Your task to perform on an android device: Open Google Maps and go to "Timeline" Image 0: 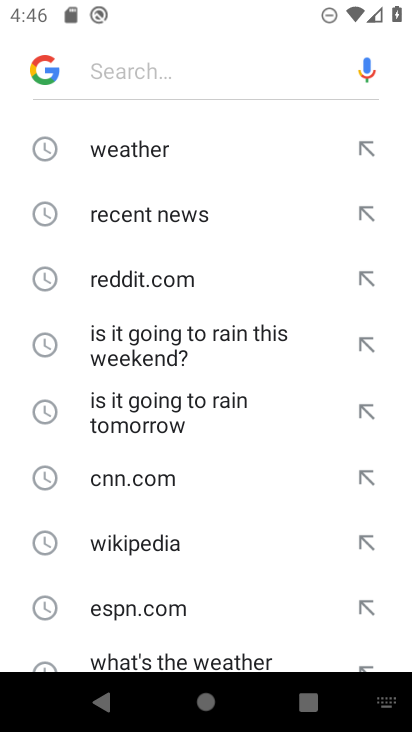
Step 0: press home button
Your task to perform on an android device: Open Google Maps and go to "Timeline" Image 1: 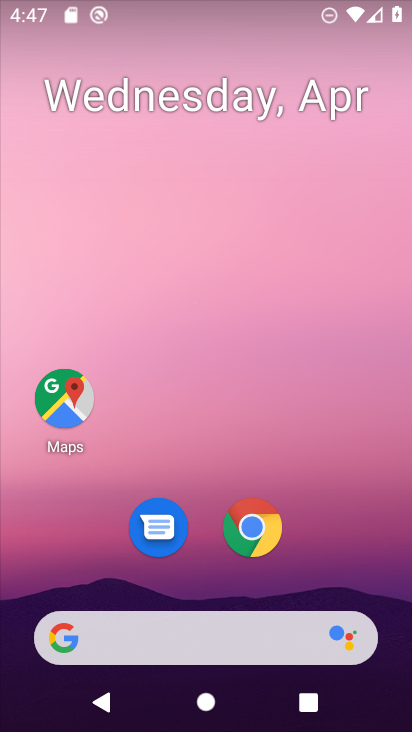
Step 1: click (55, 411)
Your task to perform on an android device: Open Google Maps and go to "Timeline" Image 2: 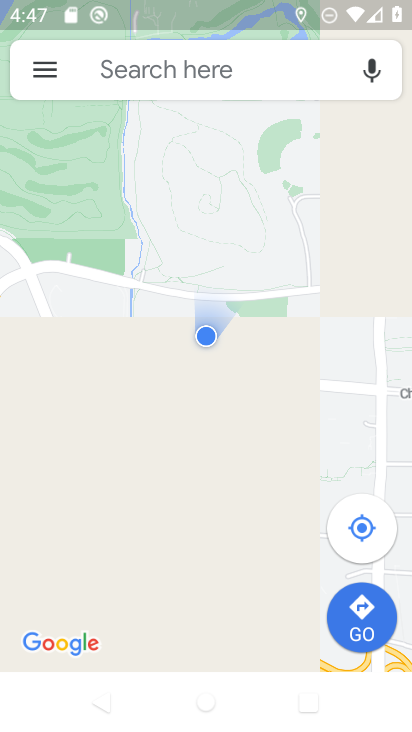
Step 2: click (50, 73)
Your task to perform on an android device: Open Google Maps and go to "Timeline" Image 3: 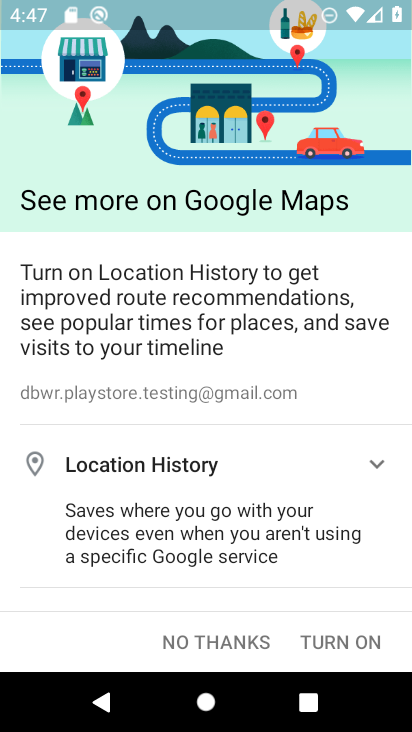
Step 3: click (186, 635)
Your task to perform on an android device: Open Google Maps and go to "Timeline" Image 4: 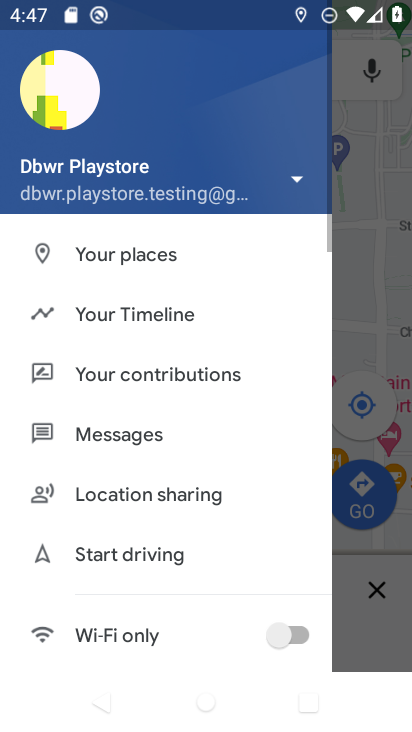
Step 4: click (108, 315)
Your task to perform on an android device: Open Google Maps and go to "Timeline" Image 5: 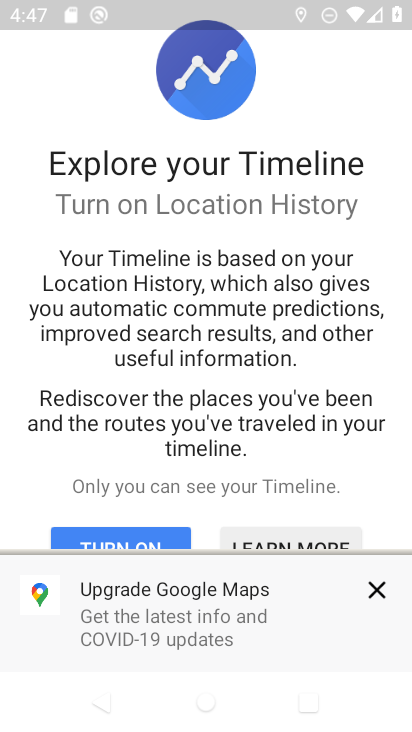
Step 5: drag from (281, 501) to (293, 186)
Your task to perform on an android device: Open Google Maps and go to "Timeline" Image 6: 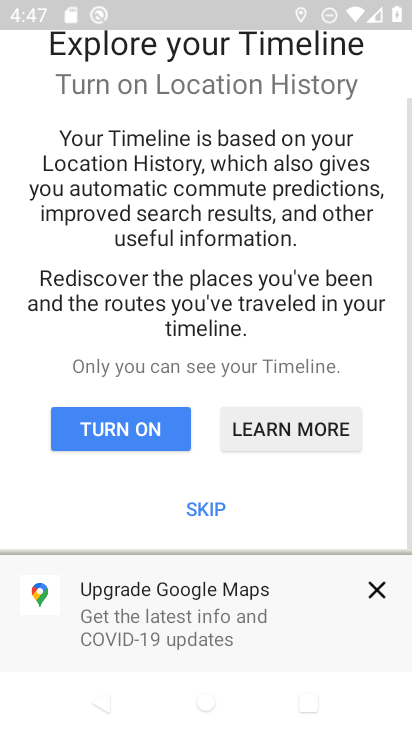
Step 6: click (209, 506)
Your task to perform on an android device: Open Google Maps and go to "Timeline" Image 7: 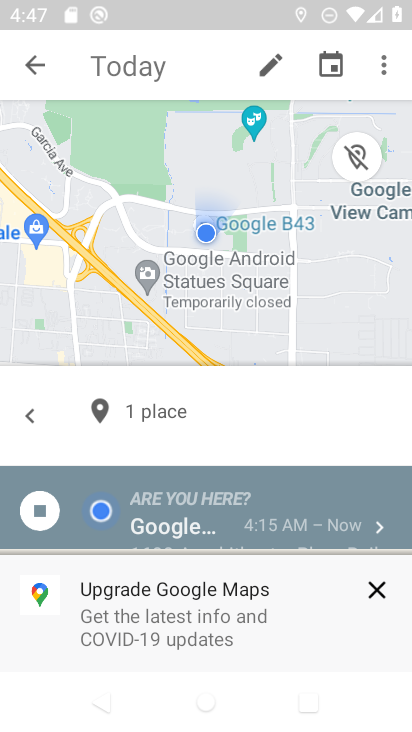
Step 7: task complete